Your task to perform on an android device: change the clock display to analog Image 0: 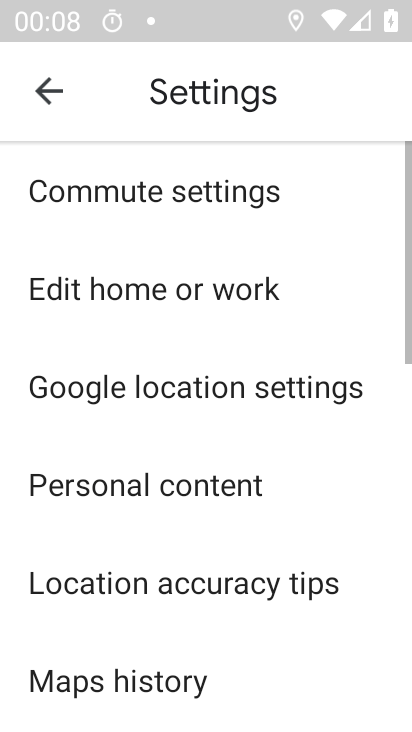
Step 0: press home button
Your task to perform on an android device: change the clock display to analog Image 1: 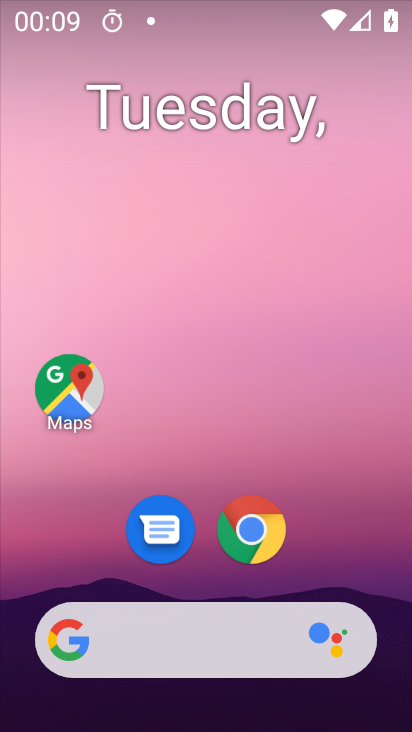
Step 1: drag from (383, 551) to (291, 170)
Your task to perform on an android device: change the clock display to analog Image 2: 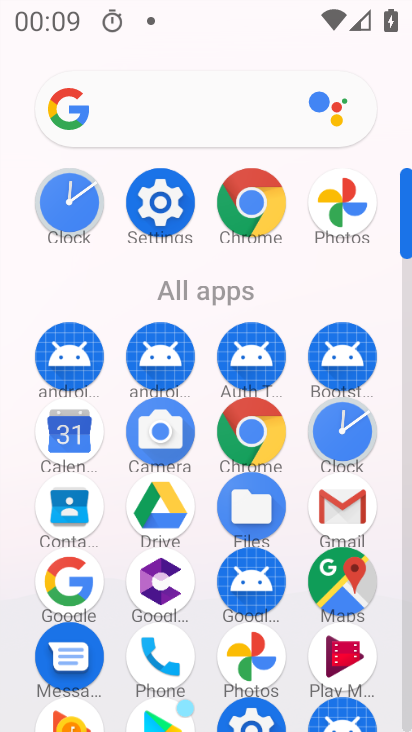
Step 2: click (373, 435)
Your task to perform on an android device: change the clock display to analog Image 3: 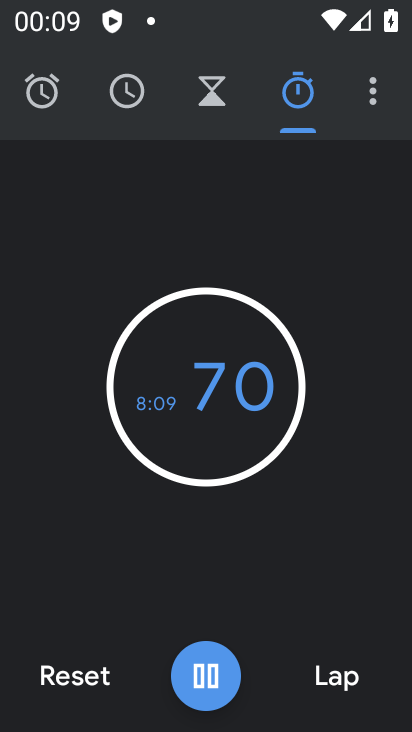
Step 3: click (391, 83)
Your task to perform on an android device: change the clock display to analog Image 4: 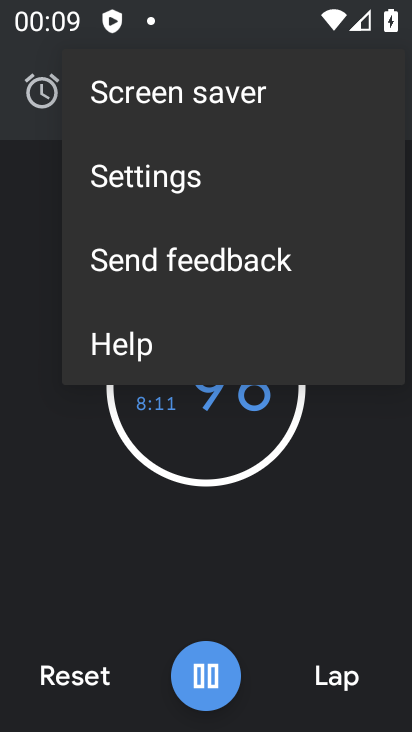
Step 4: click (172, 188)
Your task to perform on an android device: change the clock display to analog Image 5: 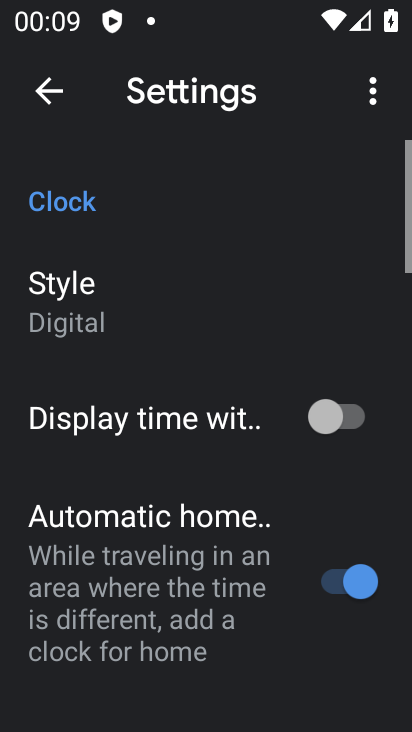
Step 5: click (115, 292)
Your task to perform on an android device: change the clock display to analog Image 6: 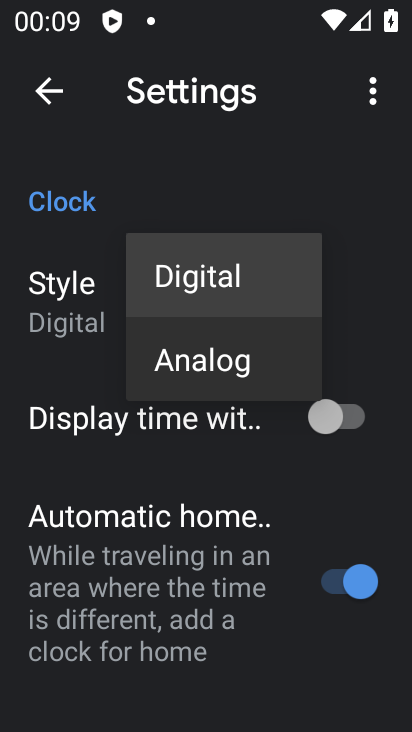
Step 6: click (190, 359)
Your task to perform on an android device: change the clock display to analog Image 7: 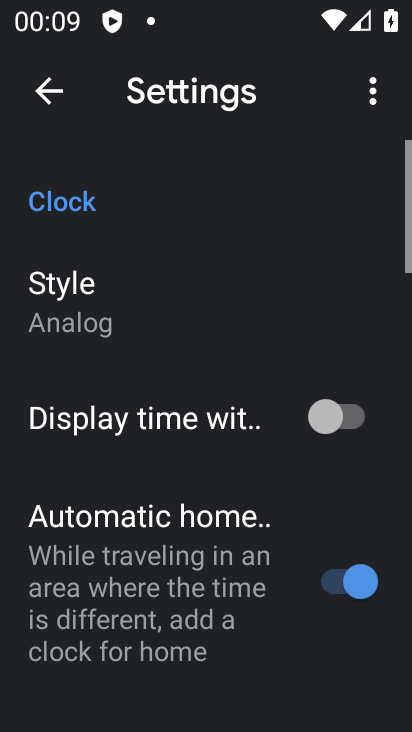
Step 7: task complete